Your task to perform on an android device: Clear the shopping cart on walmart. Add "razer thresher" to the cart on walmart, then select checkout. Image 0: 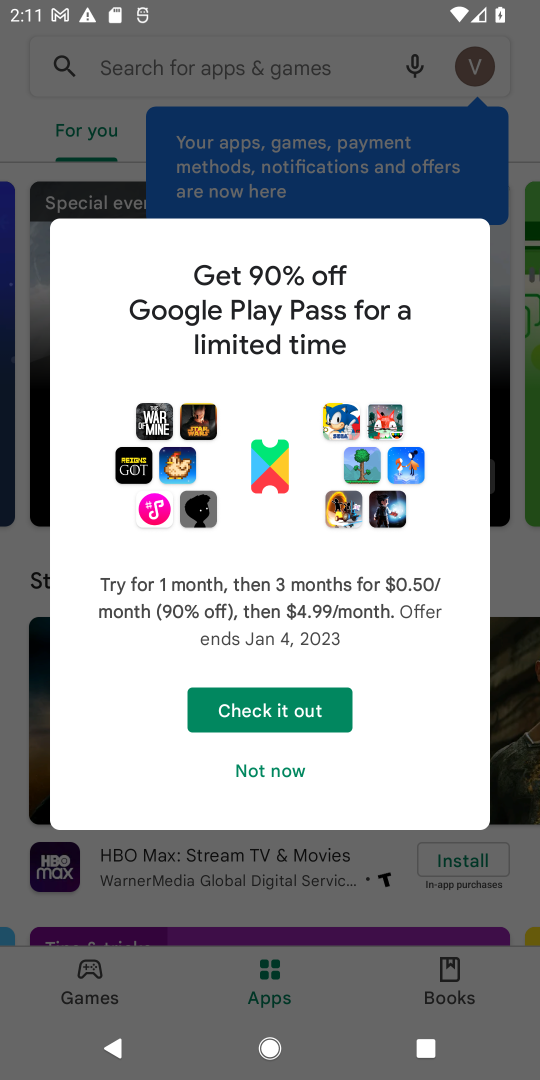
Step 0: press home button
Your task to perform on an android device: Clear the shopping cart on walmart. Add "razer thresher" to the cart on walmart, then select checkout. Image 1: 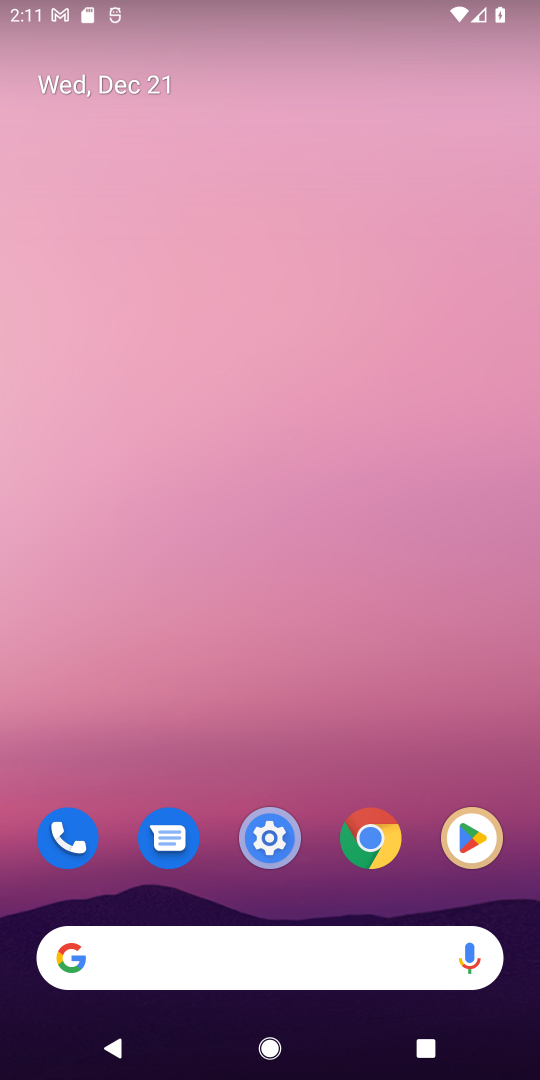
Step 1: click (362, 833)
Your task to perform on an android device: Clear the shopping cart on walmart. Add "razer thresher" to the cart on walmart, then select checkout. Image 2: 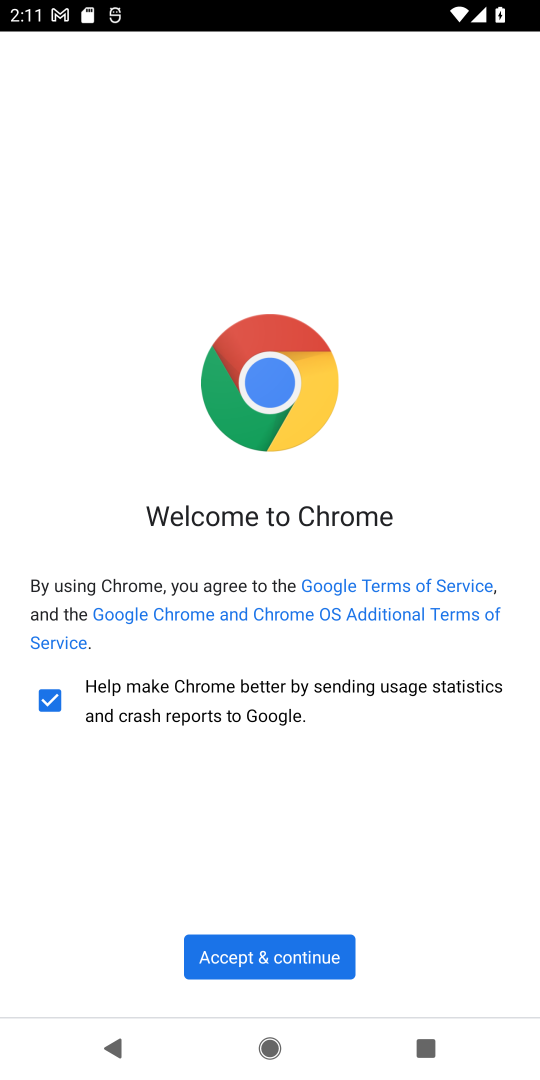
Step 2: click (321, 960)
Your task to perform on an android device: Clear the shopping cart on walmart. Add "razer thresher" to the cart on walmart, then select checkout. Image 3: 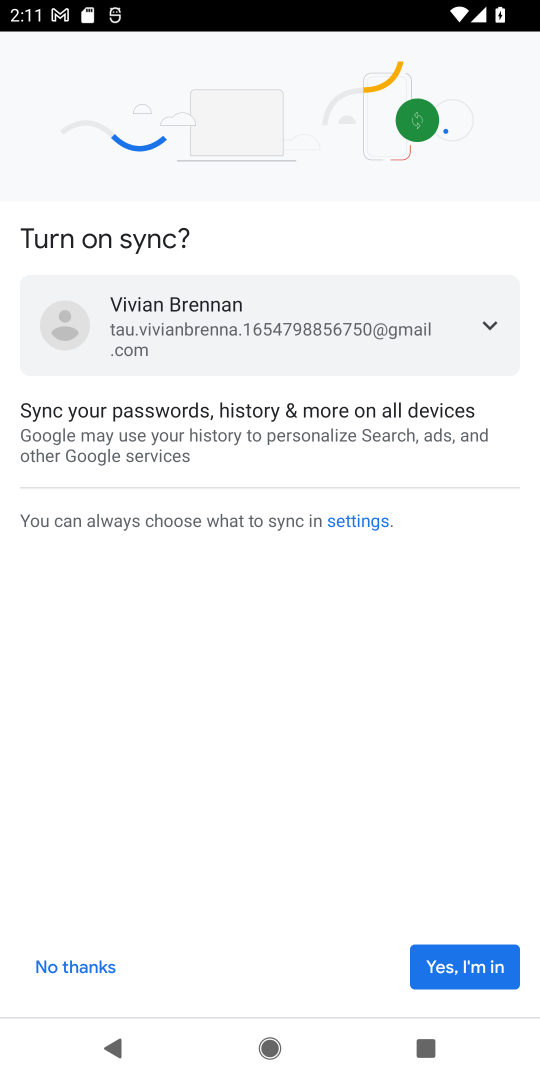
Step 3: click (440, 953)
Your task to perform on an android device: Clear the shopping cart on walmart. Add "razer thresher" to the cart on walmart, then select checkout. Image 4: 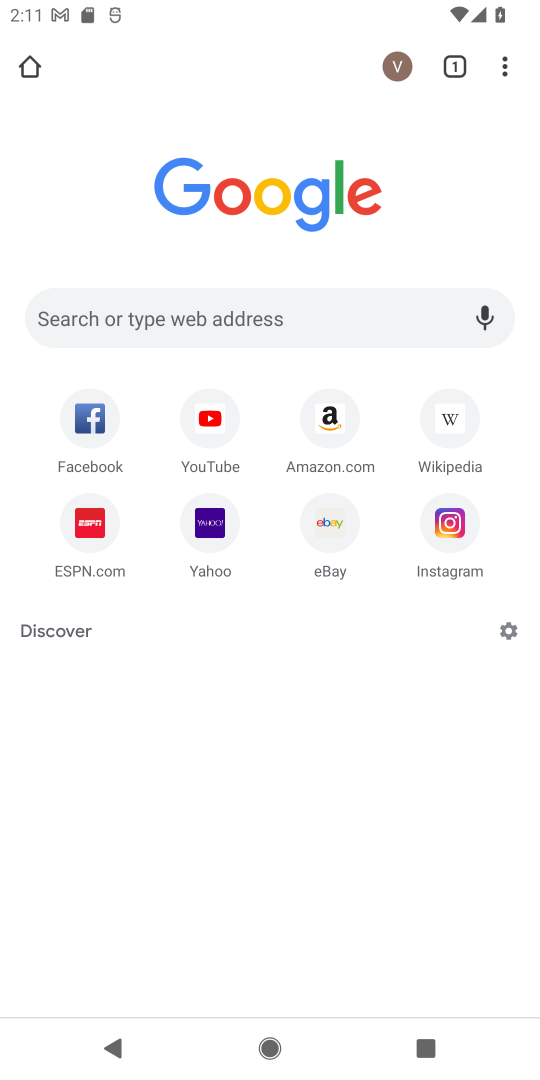
Step 4: click (312, 310)
Your task to perform on an android device: Clear the shopping cart on walmart. Add "razer thresher" to the cart on walmart, then select checkout. Image 5: 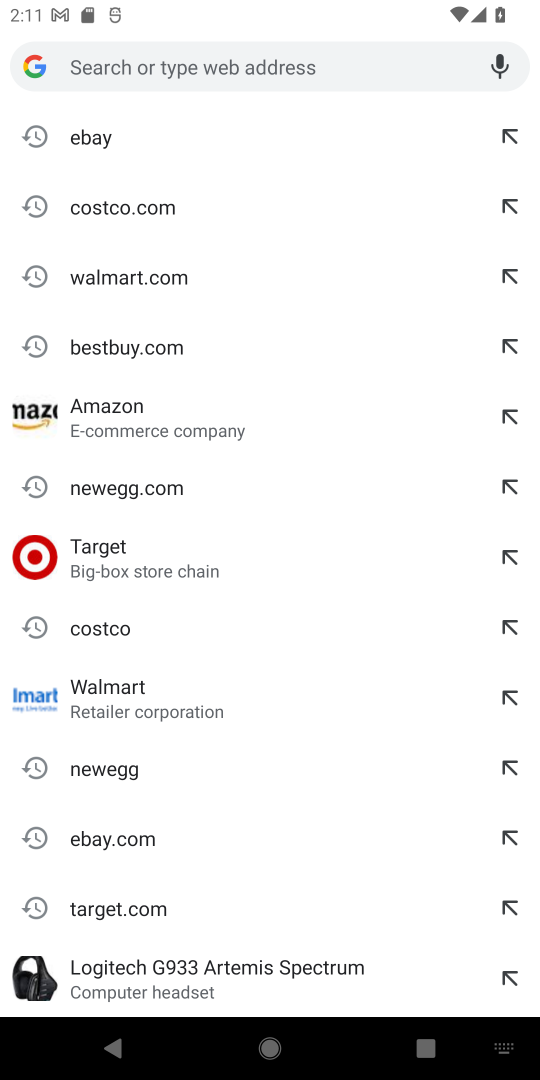
Step 5: type "razer thresher"
Your task to perform on an android device: Clear the shopping cart on walmart. Add "razer thresher" to the cart on walmart, then select checkout. Image 6: 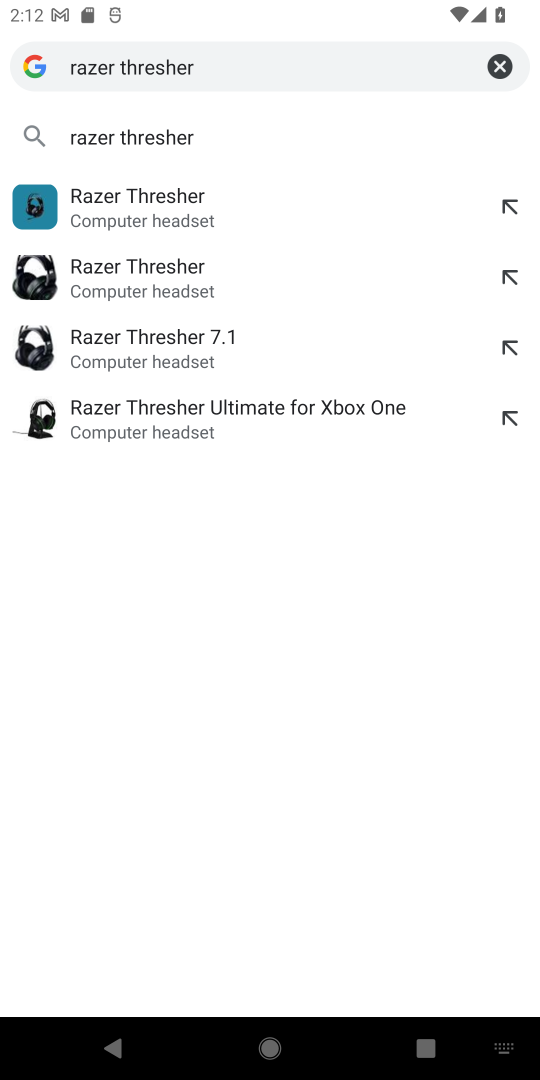
Step 6: click (223, 142)
Your task to perform on an android device: Clear the shopping cart on walmart. Add "razer thresher" to the cart on walmart, then select checkout. Image 7: 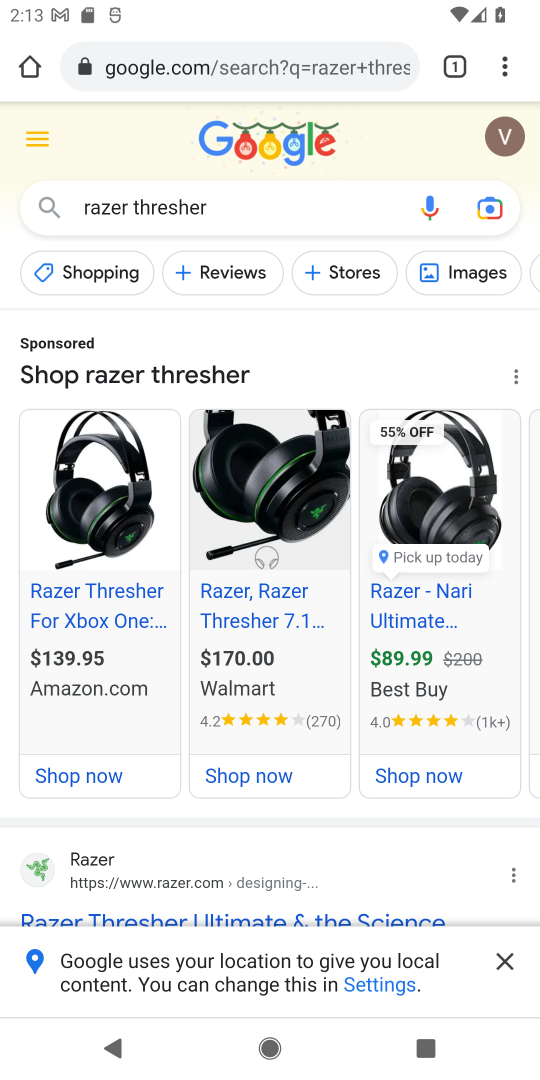
Step 7: task complete